Your task to perform on an android device: change the clock display to analog Image 0: 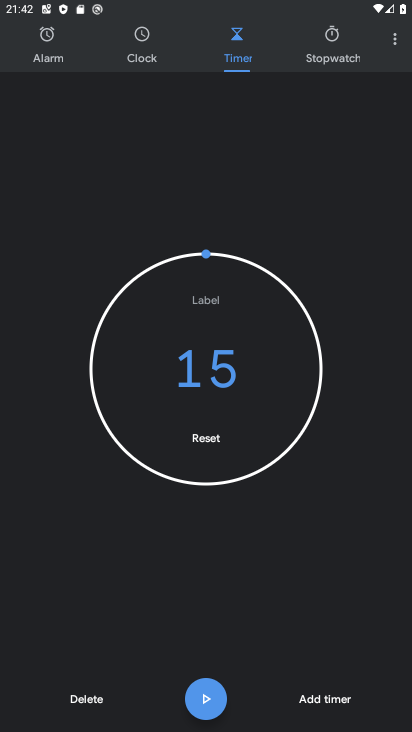
Step 0: press home button
Your task to perform on an android device: change the clock display to analog Image 1: 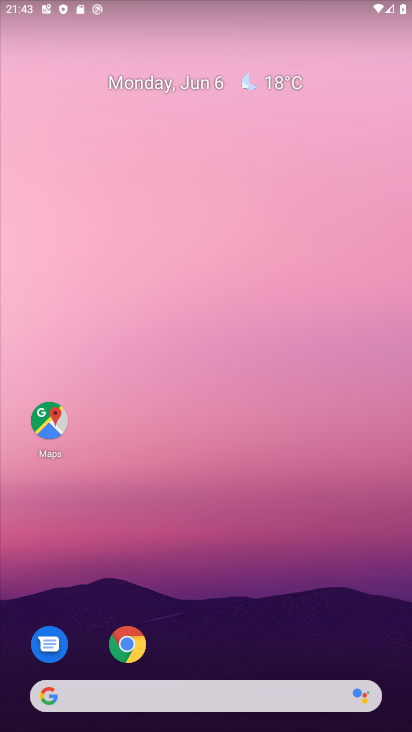
Step 1: drag from (283, 634) to (312, 251)
Your task to perform on an android device: change the clock display to analog Image 2: 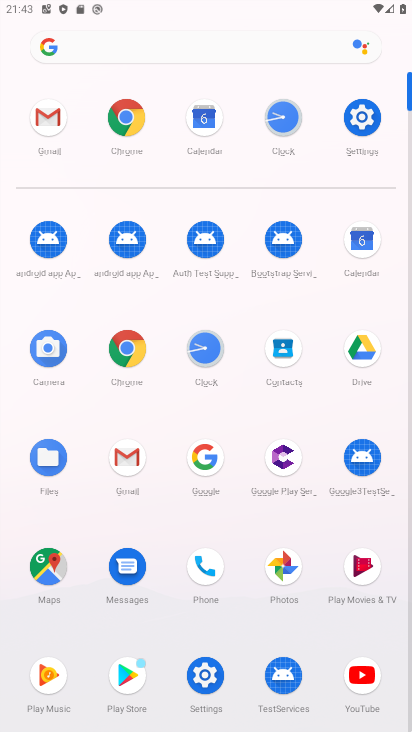
Step 2: click (223, 350)
Your task to perform on an android device: change the clock display to analog Image 3: 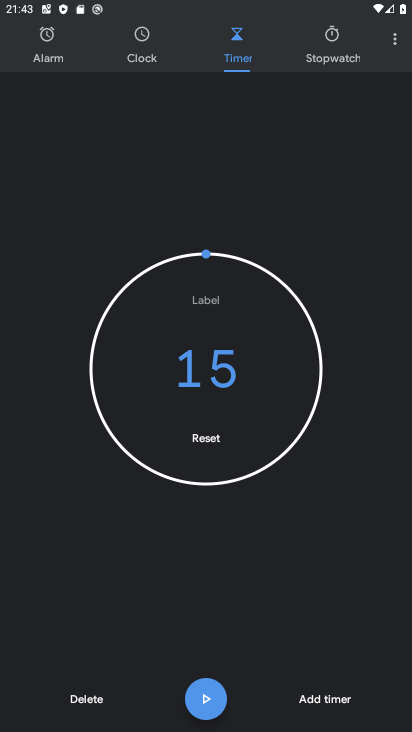
Step 3: click (402, 46)
Your task to perform on an android device: change the clock display to analog Image 4: 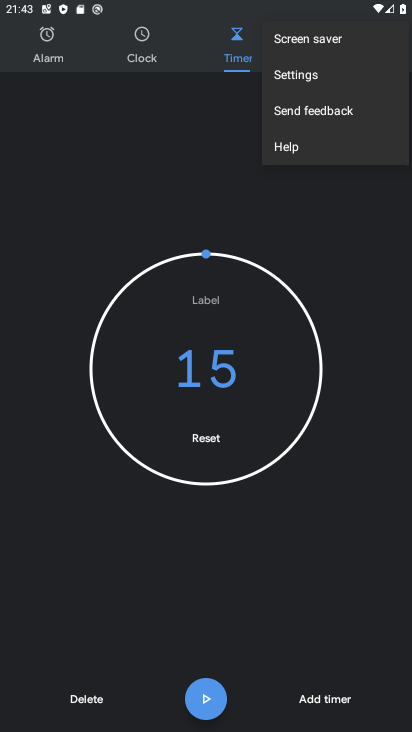
Step 4: click (323, 74)
Your task to perform on an android device: change the clock display to analog Image 5: 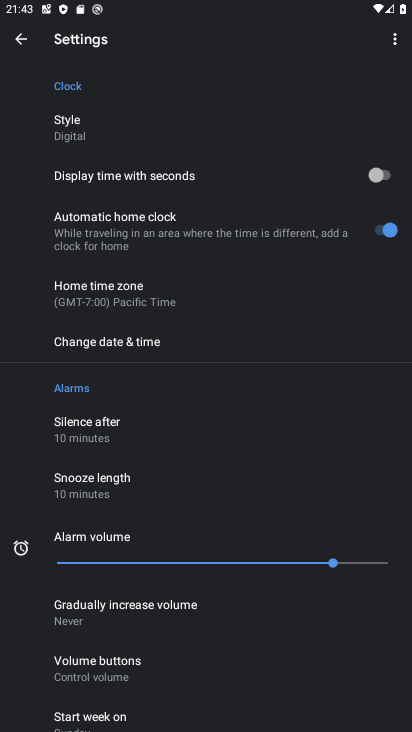
Step 5: click (149, 125)
Your task to perform on an android device: change the clock display to analog Image 6: 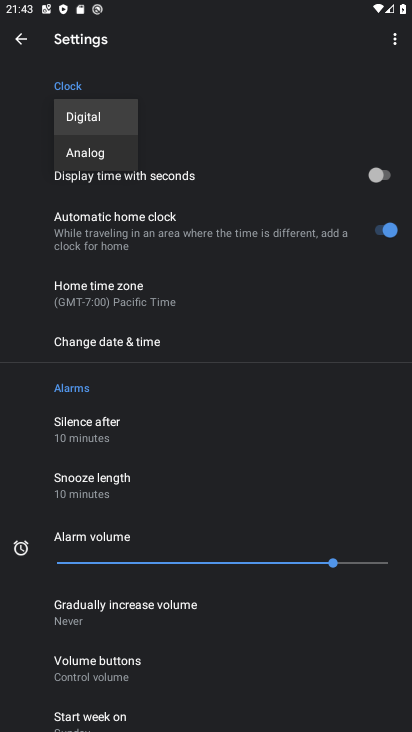
Step 6: click (93, 157)
Your task to perform on an android device: change the clock display to analog Image 7: 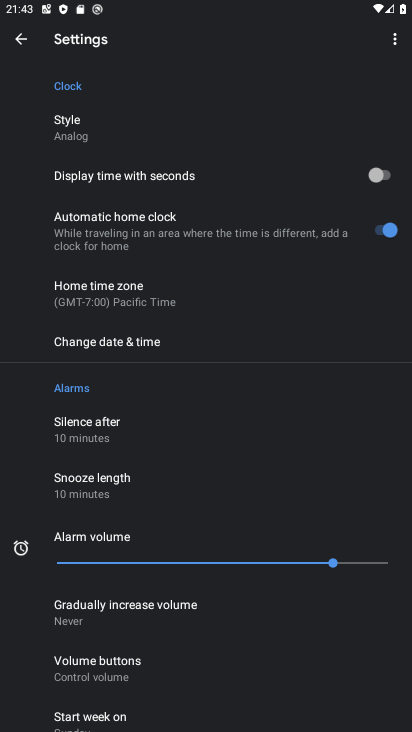
Step 7: task complete